Your task to perform on an android device: Open Amazon Image 0: 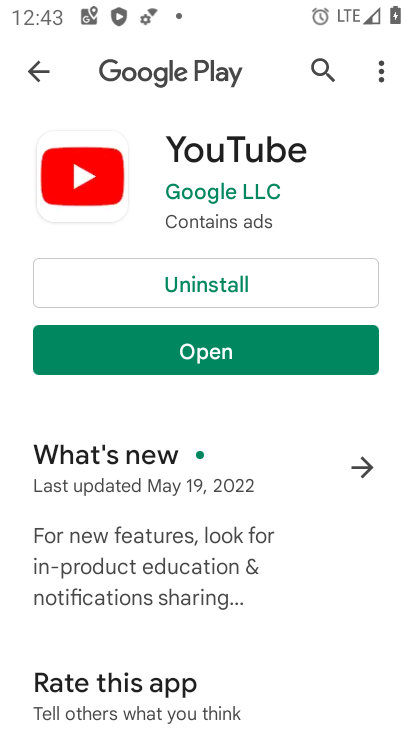
Step 0: press home button
Your task to perform on an android device: Open Amazon Image 1: 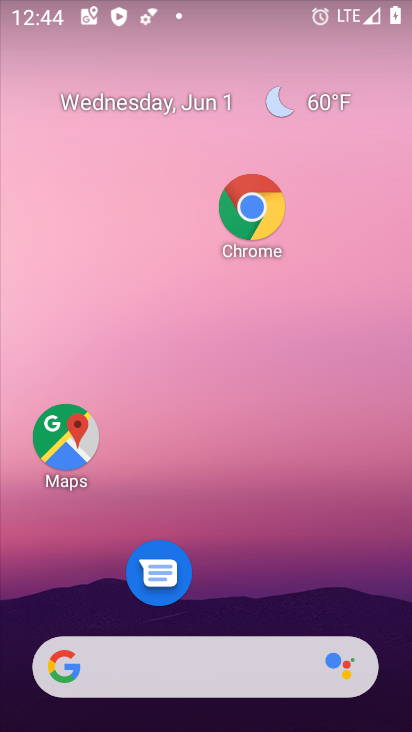
Step 1: click (248, 215)
Your task to perform on an android device: Open Amazon Image 2: 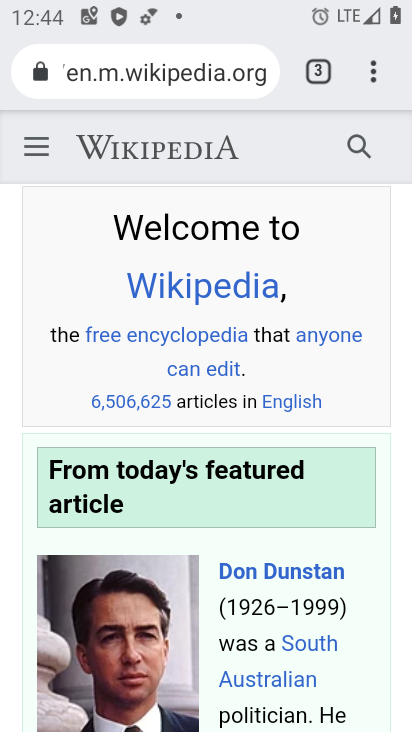
Step 2: click (317, 72)
Your task to perform on an android device: Open Amazon Image 3: 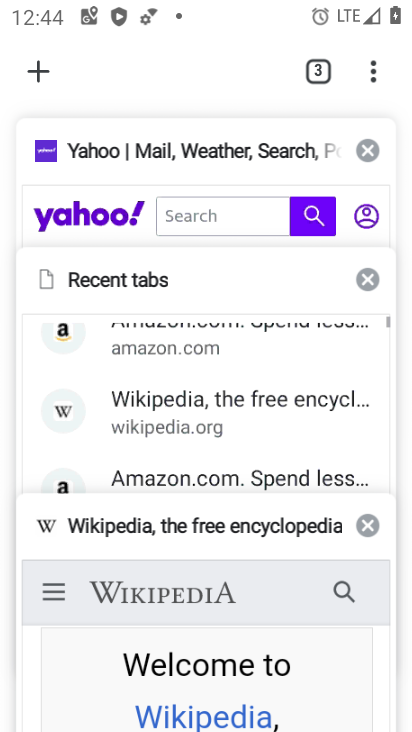
Step 3: click (27, 75)
Your task to perform on an android device: Open Amazon Image 4: 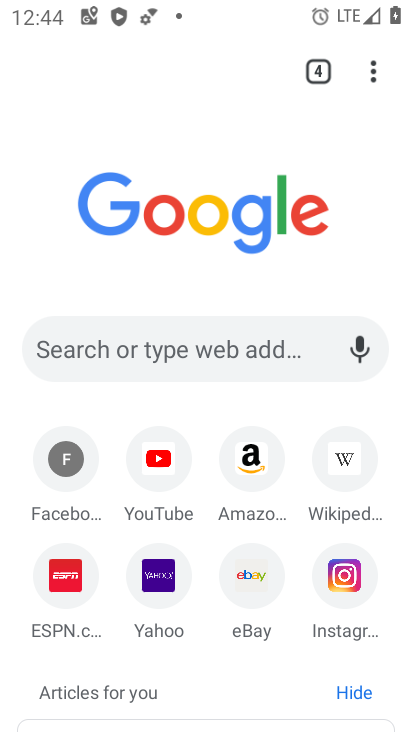
Step 4: click (259, 441)
Your task to perform on an android device: Open Amazon Image 5: 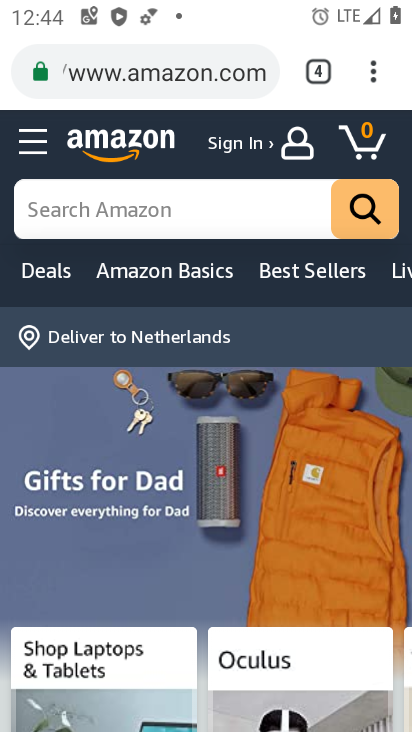
Step 5: task complete